Your task to perform on an android device: choose inbox layout in the gmail app Image 0: 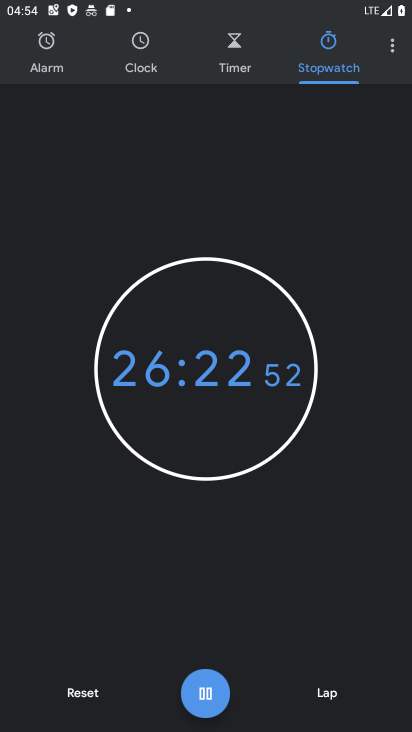
Step 0: press home button
Your task to perform on an android device: choose inbox layout in the gmail app Image 1: 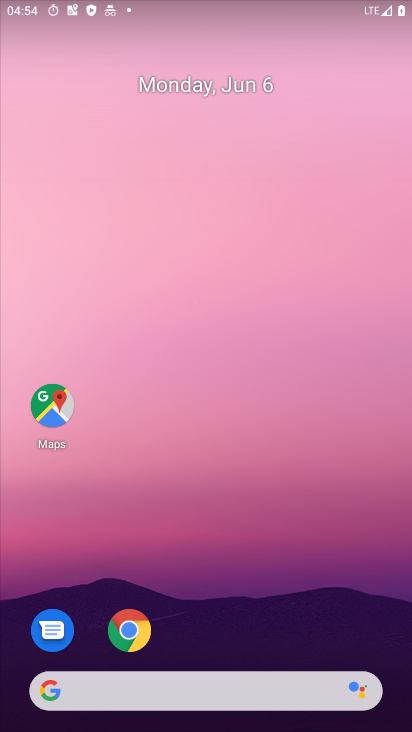
Step 1: drag from (228, 594) to (337, 200)
Your task to perform on an android device: choose inbox layout in the gmail app Image 2: 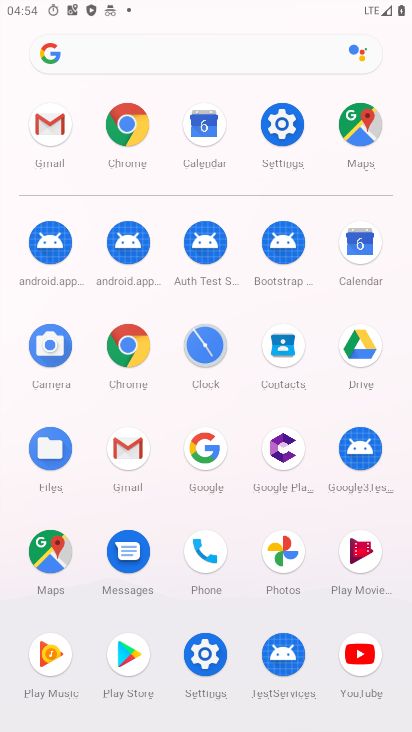
Step 2: click (129, 445)
Your task to perform on an android device: choose inbox layout in the gmail app Image 3: 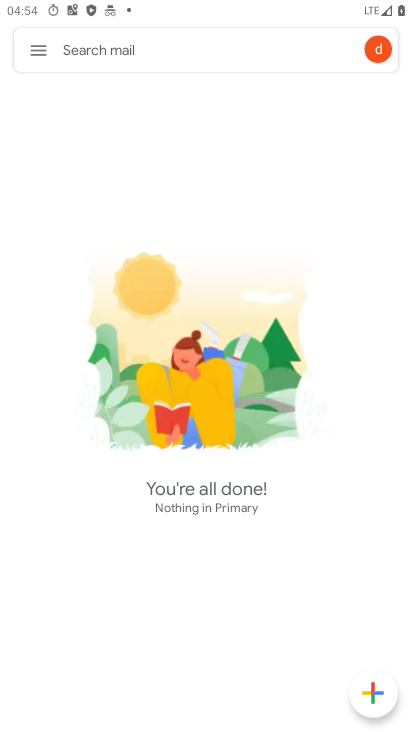
Step 3: click (40, 42)
Your task to perform on an android device: choose inbox layout in the gmail app Image 4: 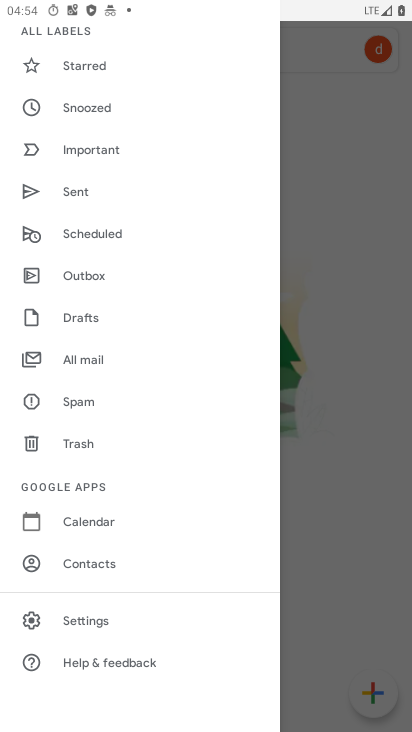
Step 4: click (82, 620)
Your task to perform on an android device: choose inbox layout in the gmail app Image 5: 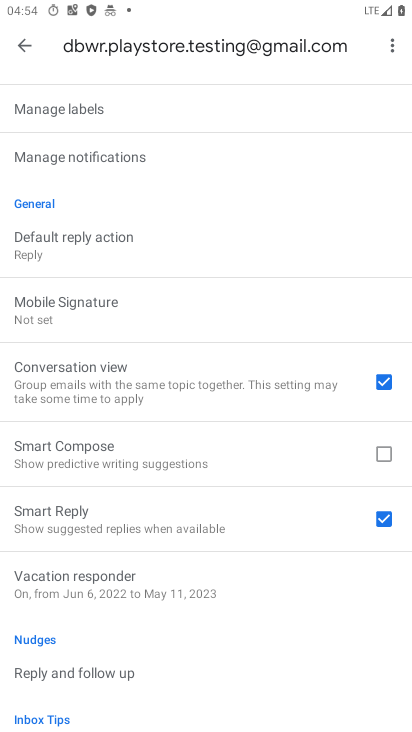
Step 5: drag from (132, 216) to (214, 635)
Your task to perform on an android device: choose inbox layout in the gmail app Image 6: 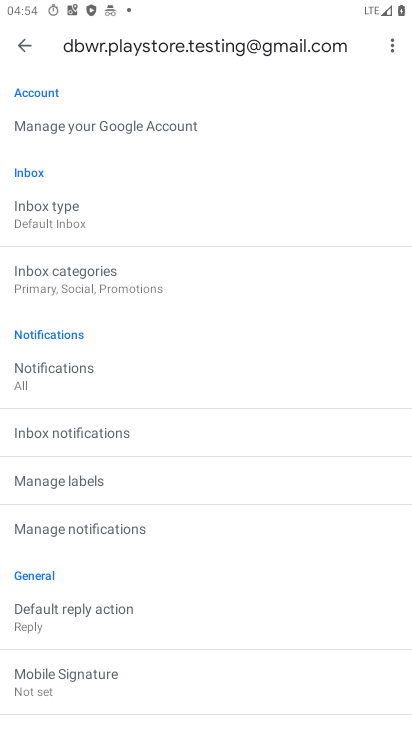
Step 6: click (60, 215)
Your task to perform on an android device: choose inbox layout in the gmail app Image 7: 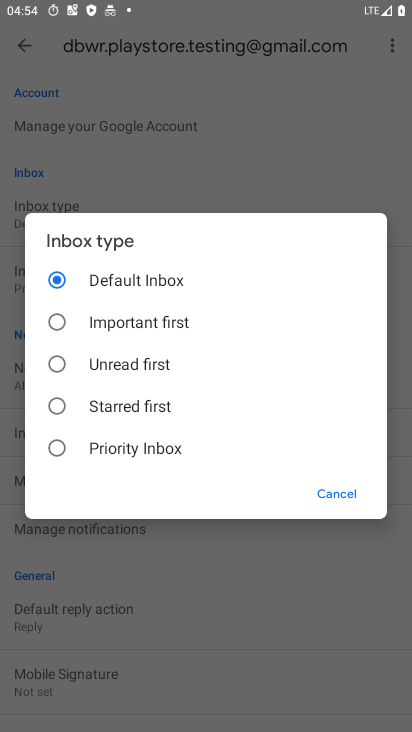
Step 7: click (106, 445)
Your task to perform on an android device: choose inbox layout in the gmail app Image 8: 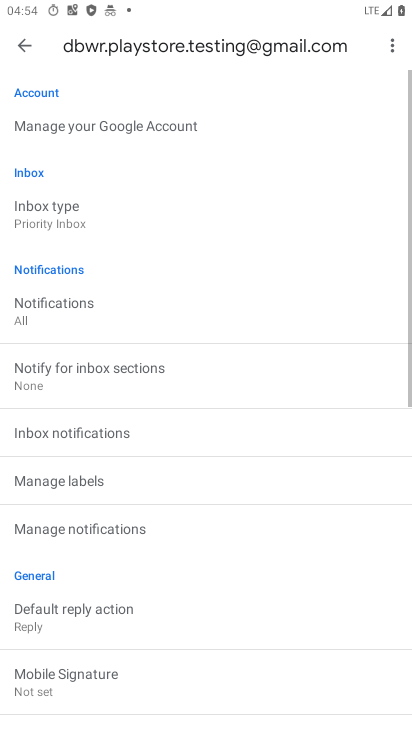
Step 8: task complete